Your task to perform on an android device: add a contact Image 0: 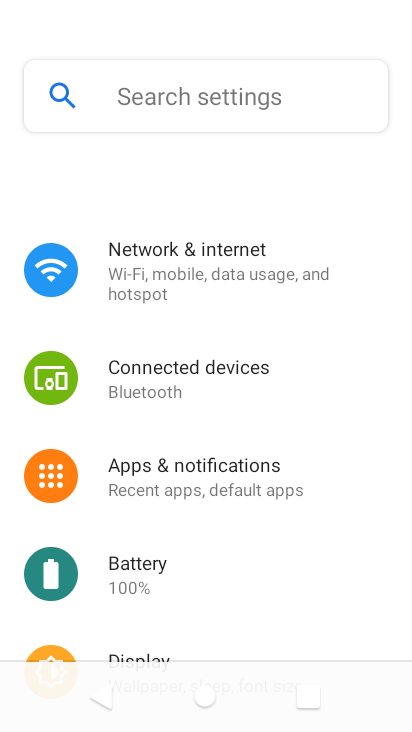
Step 0: drag from (142, 550) to (240, 81)
Your task to perform on an android device: add a contact Image 1: 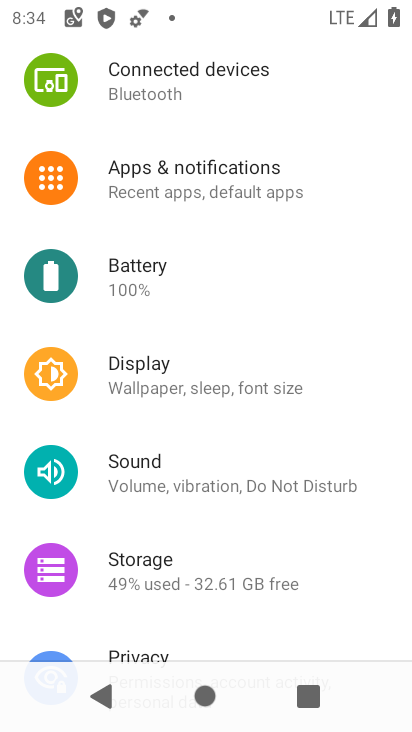
Step 1: press back button
Your task to perform on an android device: add a contact Image 2: 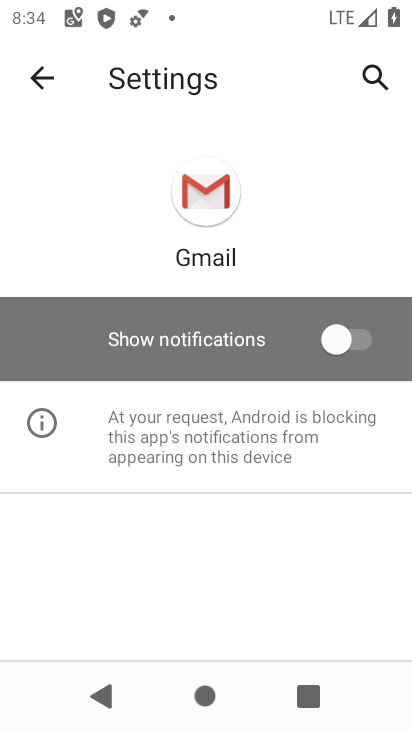
Step 2: press back button
Your task to perform on an android device: add a contact Image 3: 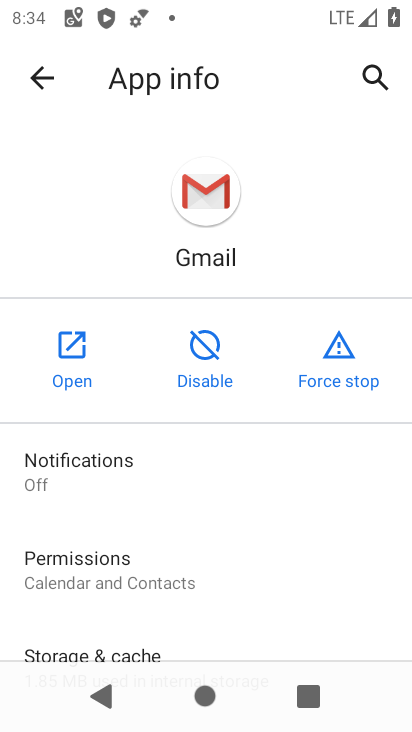
Step 3: press back button
Your task to perform on an android device: add a contact Image 4: 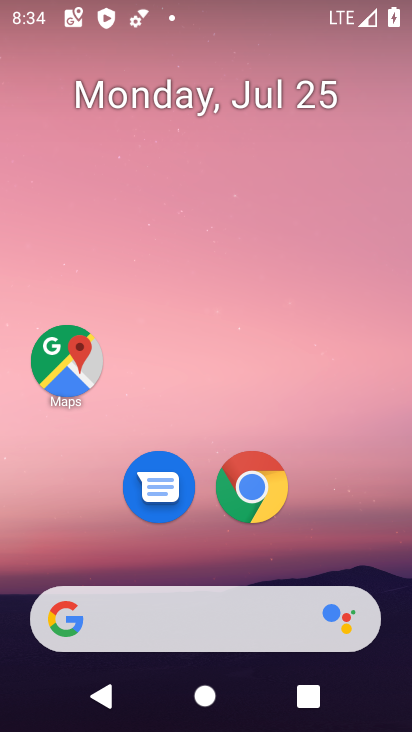
Step 4: drag from (89, 430) to (199, 46)
Your task to perform on an android device: add a contact Image 5: 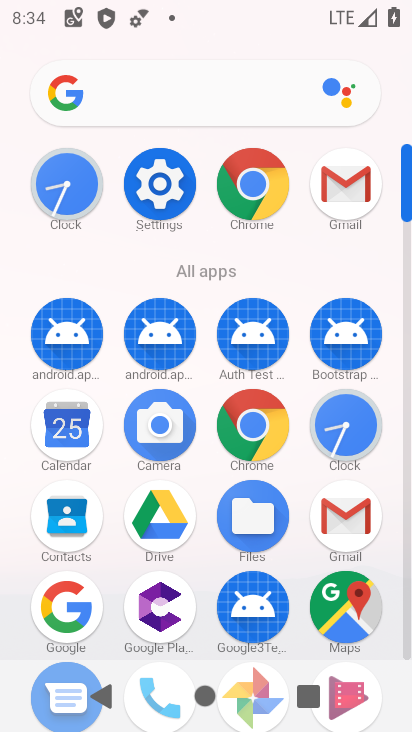
Step 5: click (72, 519)
Your task to perform on an android device: add a contact Image 6: 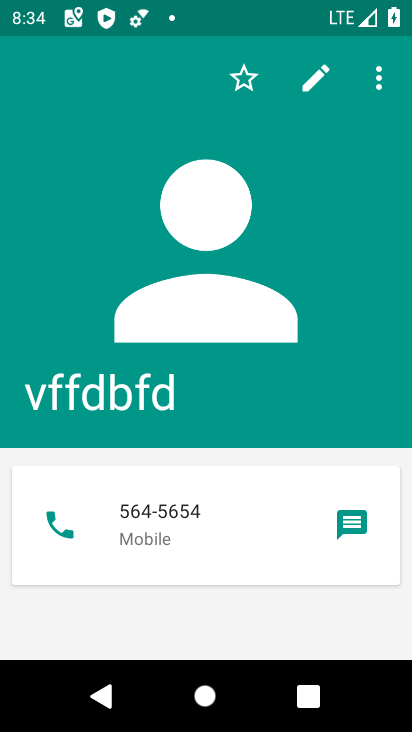
Step 6: press back button
Your task to perform on an android device: add a contact Image 7: 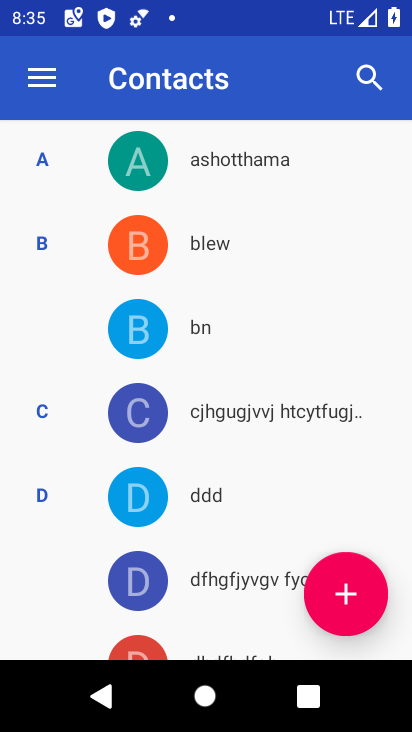
Step 7: click (320, 597)
Your task to perform on an android device: add a contact Image 8: 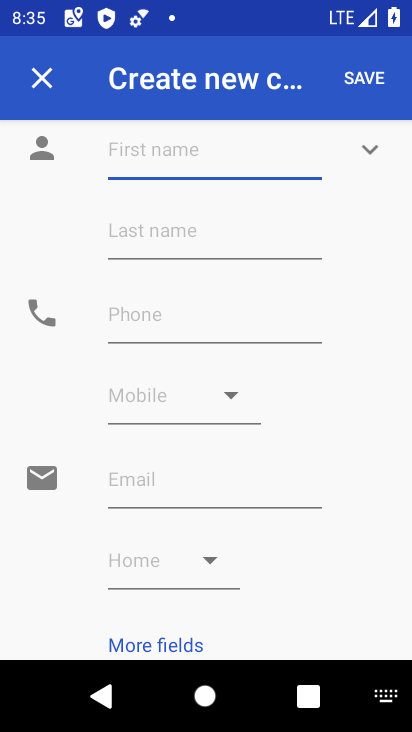
Step 8: click (143, 152)
Your task to perform on an android device: add a contact Image 9: 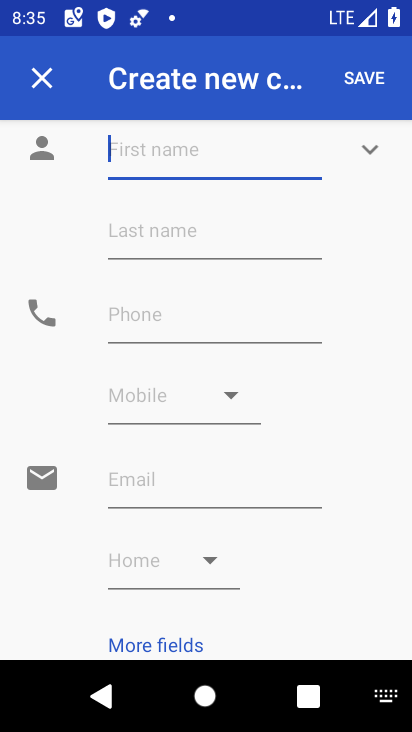
Step 9: type "ghgfff"
Your task to perform on an android device: add a contact Image 10: 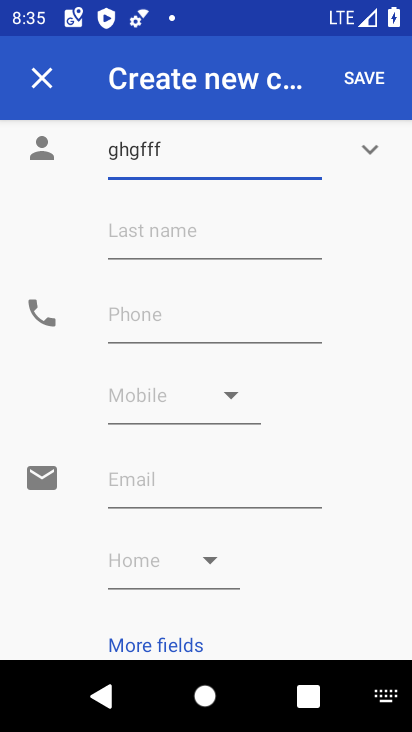
Step 10: click (108, 320)
Your task to perform on an android device: add a contact Image 11: 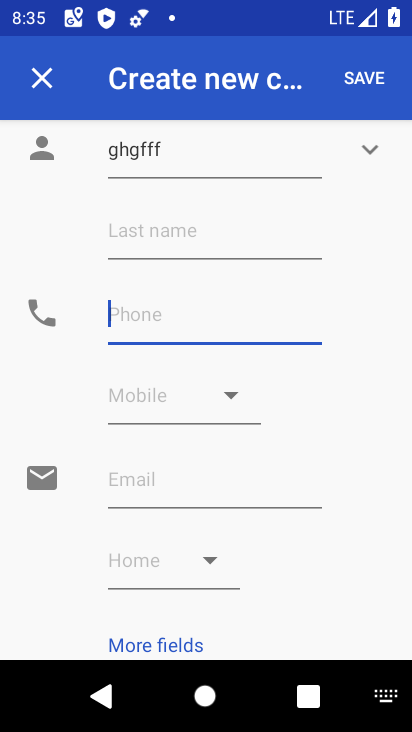
Step 11: type "757575"
Your task to perform on an android device: add a contact Image 12: 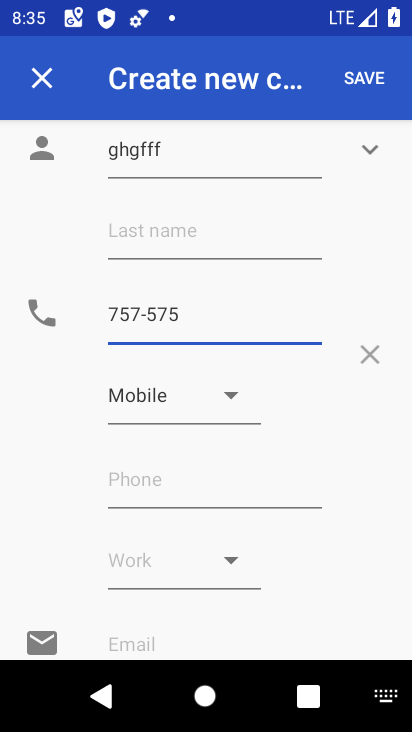
Step 12: click (370, 70)
Your task to perform on an android device: add a contact Image 13: 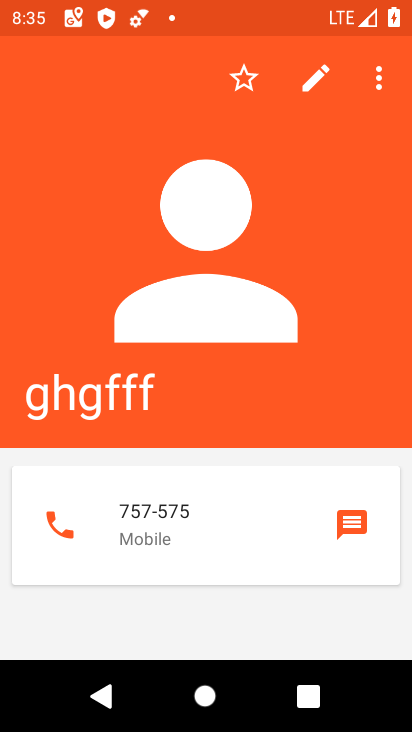
Step 13: task complete